Your task to perform on an android device: set the stopwatch Image 0: 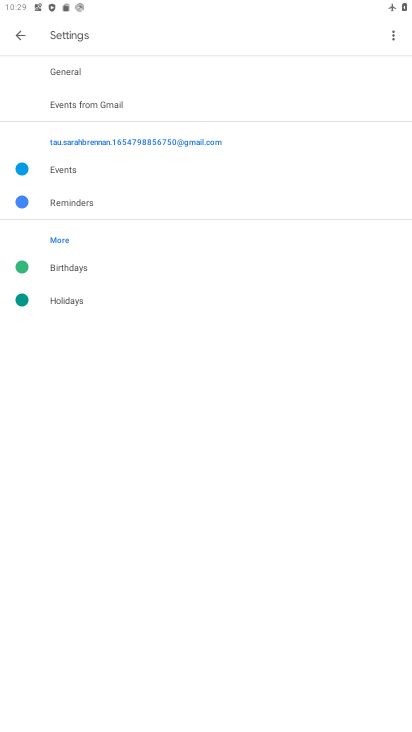
Step 0: press home button
Your task to perform on an android device: set the stopwatch Image 1: 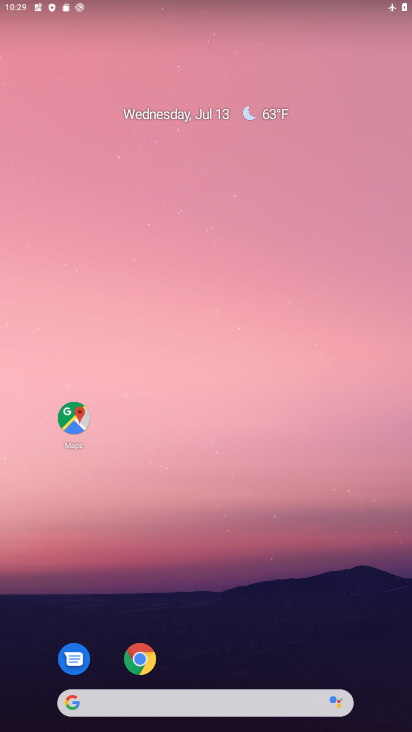
Step 1: drag from (341, 561) to (279, 58)
Your task to perform on an android device: set the stopwatch Image 2: 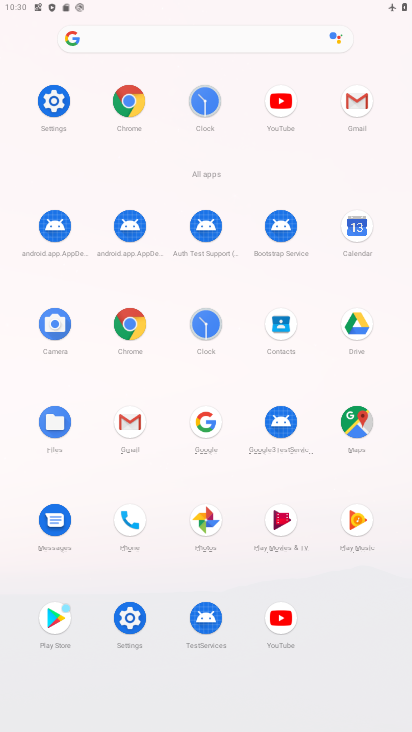
Step 2: click (203, 327)
Your task to perform on an android device: set the stopwatch Image 3: 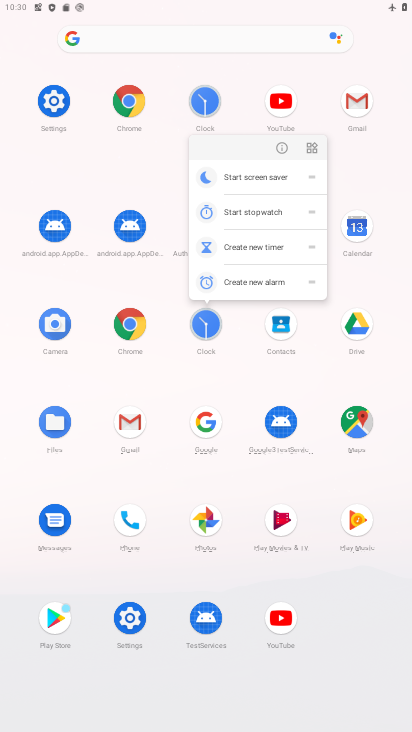
Step 3: click (203, 326)
Your task to perform on an android device: set the stopwatch Image 4: 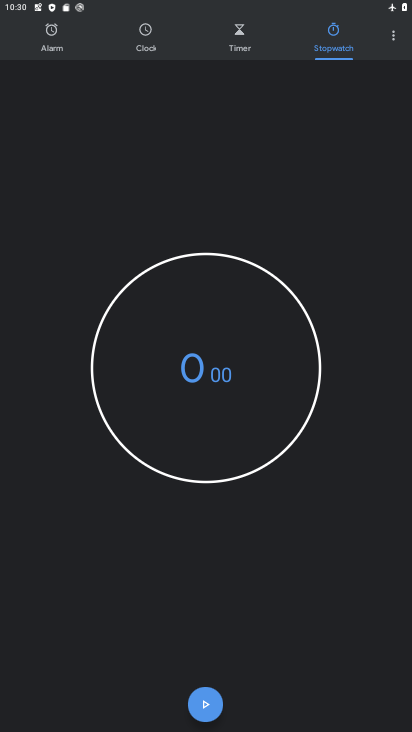
Step 4: click (203, 710)
Your task to perform on an android device: set the stopwatch Image 5: 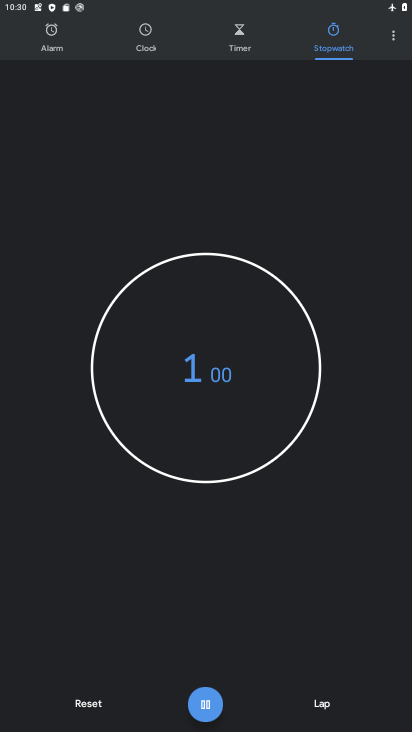
Step 5: click (203, 710)
Your task to perform on an android device: set the stopwatch Image 6: 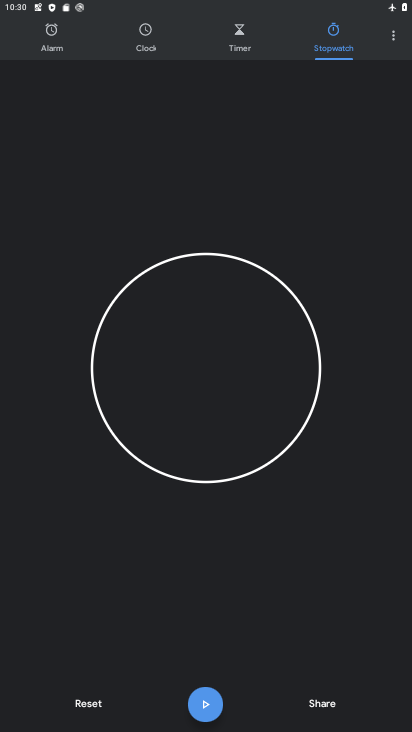
Step 6: task complete